Your task to perform on an android device: toggle notifications settings in the gmail app Image 0: 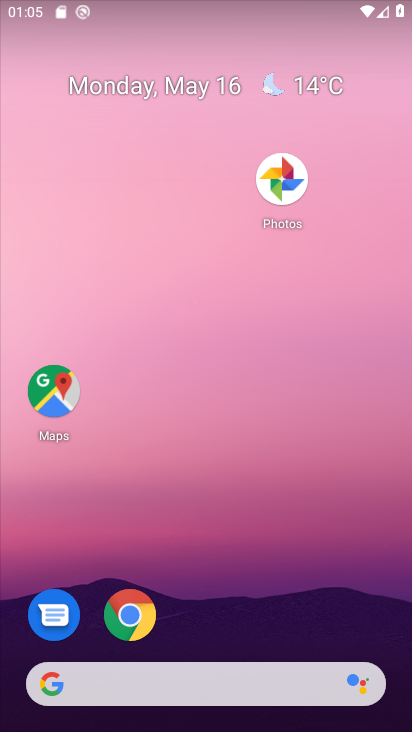
Step 0: drag from (380, 574) to (380, 116)
Your task to perform on an android device: toggle notifications settings in the gmail app Image 1: 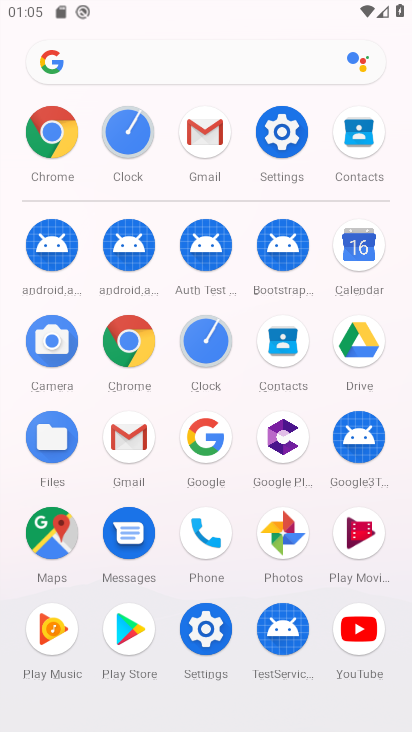
Step 1: click (131, 453)
Your task to perform on an android device: toggle notifications settings in the gmail app Image 2: 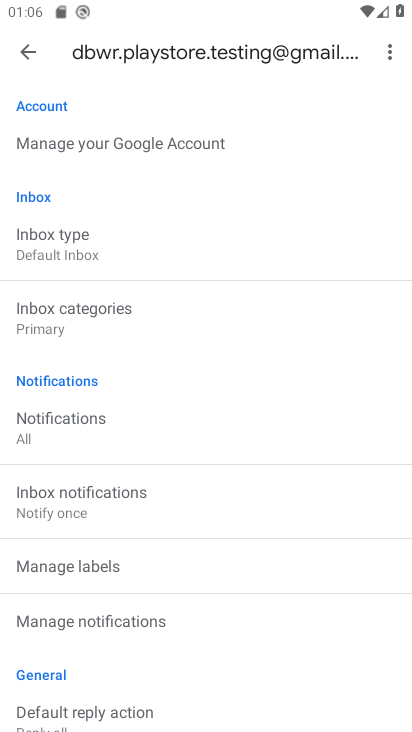
Step 2: click (56, 411)
Your task to perform on an android device: toggle notifications settings in the gmail app Image 3: 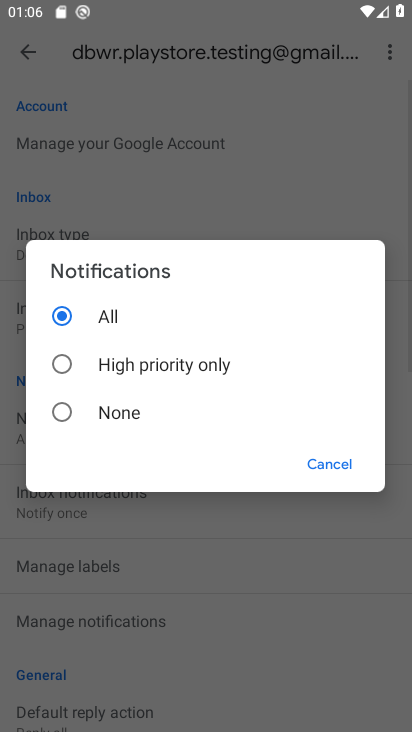
Step 3: click (127, 410)
Your task to perform on an android device: toggle notifications settings in the gmail app Image 4: 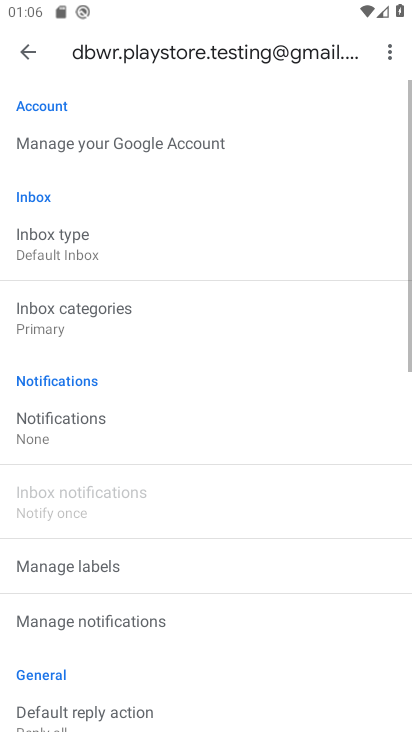
Step 4: task complete